Your task to perform on an android device: delete browsing data in the chrome app Image 0: 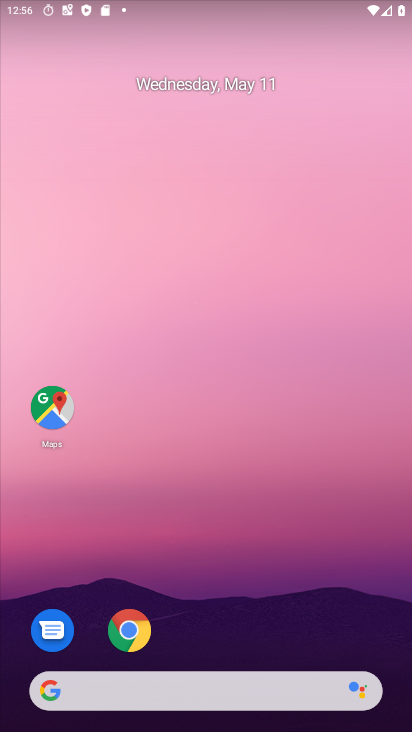
Step 0: click (125, 623)
Your task to perform on an android device: delete browsing data in the chrome app Image 1: 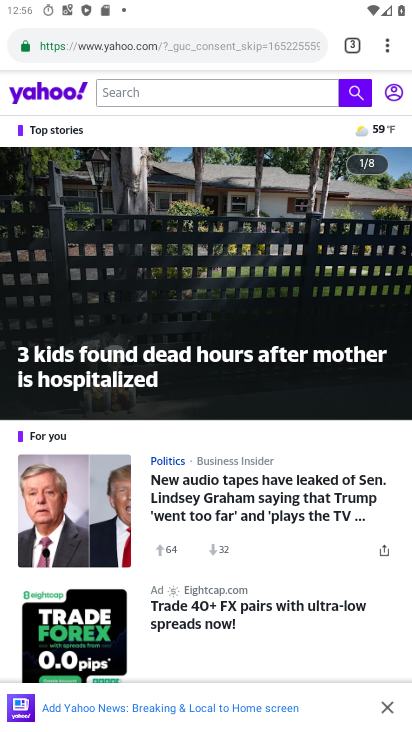
Step 1: drag from (384, 42) to (248, 265)
Your task to perform on an android device: delete browsing data in the chrome app Image 2: 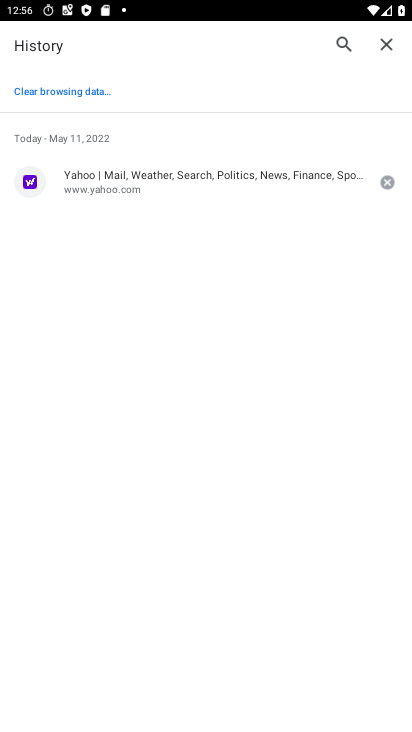
Step 2: click (83, 94)
Your task to perform on an android device: delete browsing data in the chrome app Image 3: 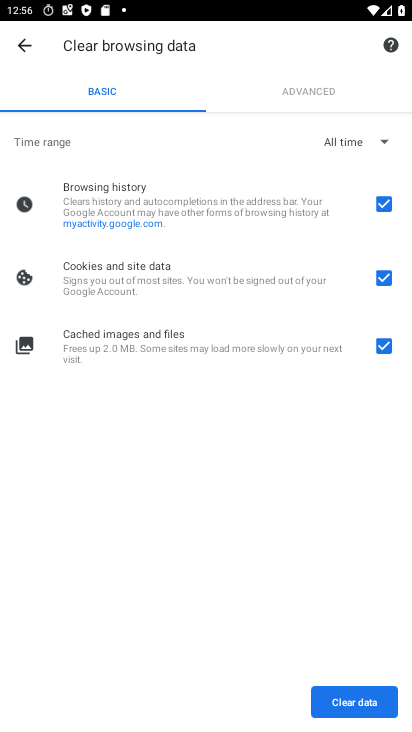
Step 3: click (357, 703)
Your task to perform on an android device: delete browsing data in the chrome app Image 4: 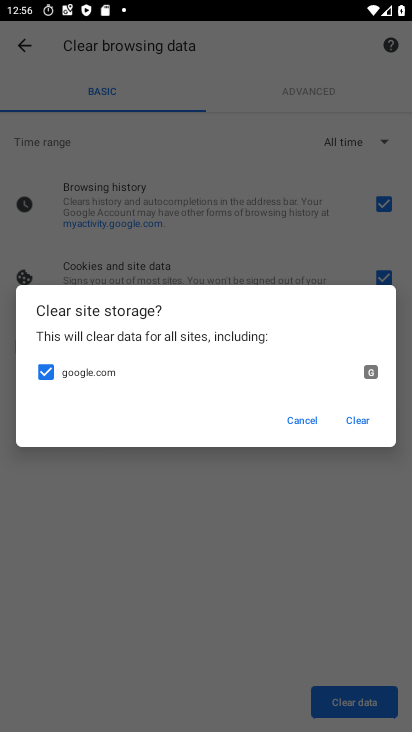
Step 4: click (359, 415)
Your task to perform on an android device: delete browsing data in the chrome app Image 5: 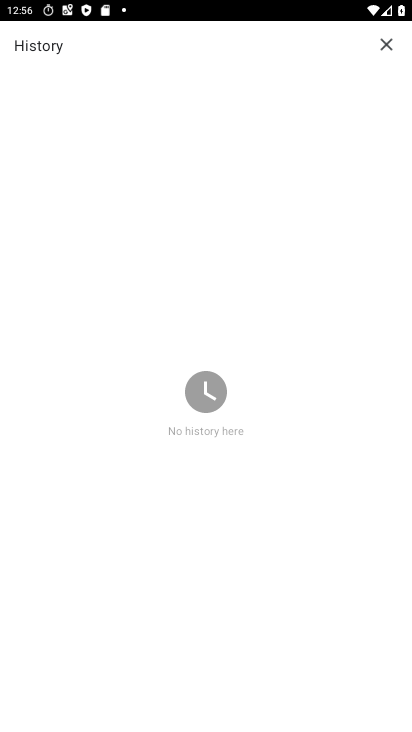
Step 5: task complete